Your task to perform on an android device: change alarm snooze length Image 0: 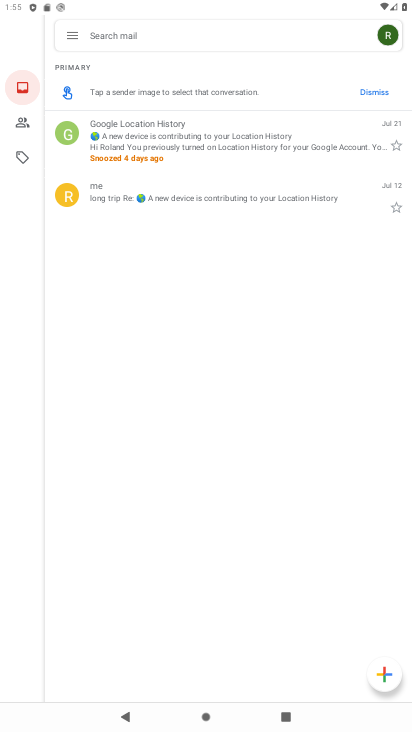
Step 0: press home button
Your task to perform on an android device: change alarm snooze length Image 1: 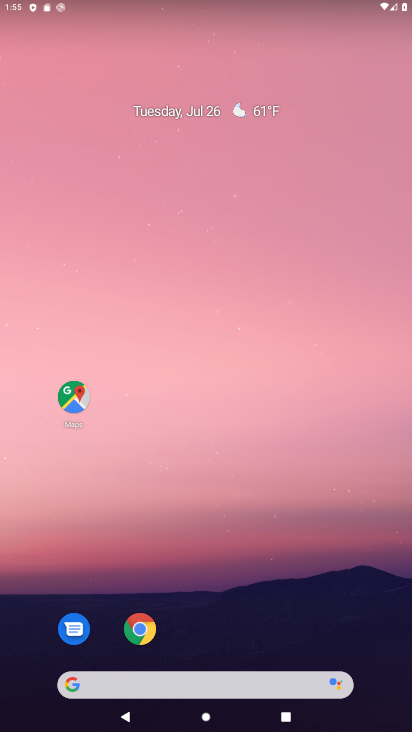
Step 1: drag from (229, 580) to (226, 7)
Your task to perform on an android device: change alarm snooze length Image 2: 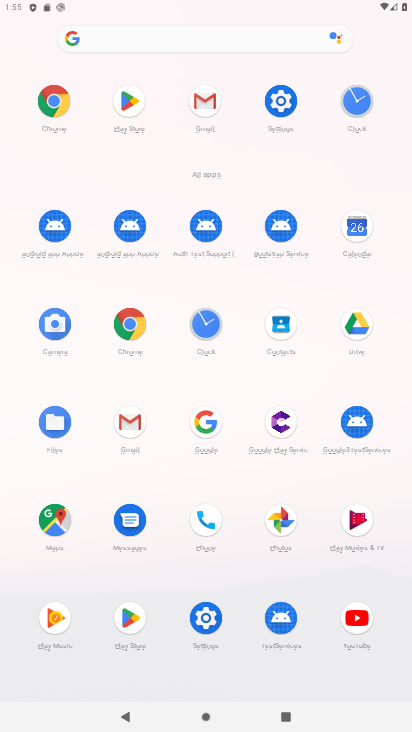
Step 2: click (207, 326)
Your task to perform on an android device: change alarm snooze length Image 3: 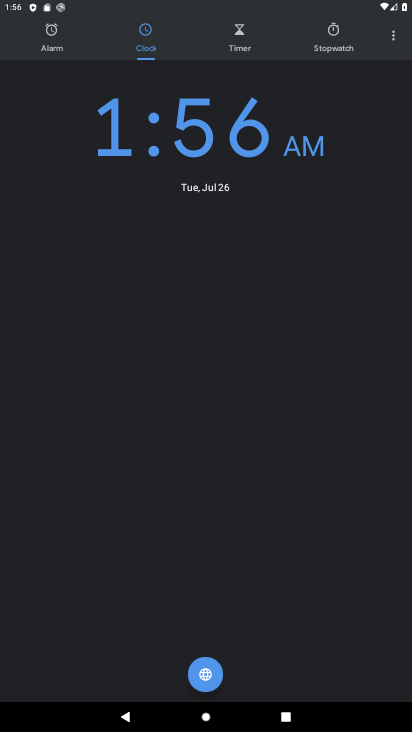
Step 3: click (393, 39)
Your task to perform on an android device: change alarm snooze length Image 4: 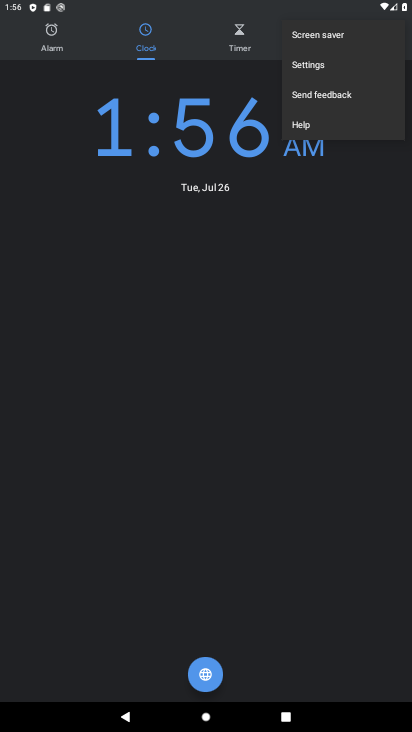
Step 4: click (309, 60)
Your task to perform on an android device: change alarm snooze length Image 5: 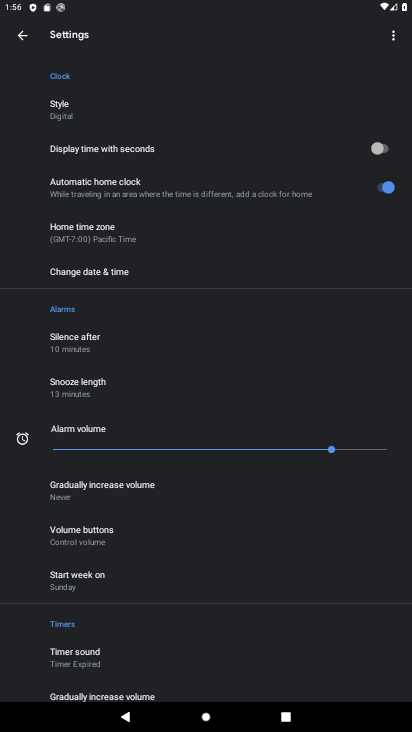
Step 5: click (82, 384)
Your task to perform on an android device: change alarm snooze length Image 6: 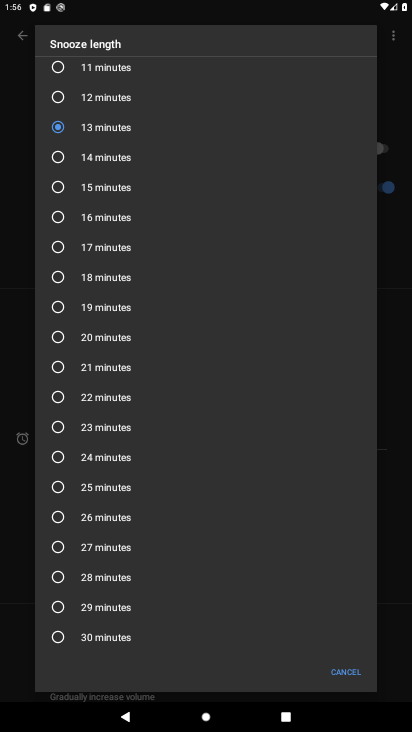
Step 6: click (56, 187)
Your task to perform on an android device: change alarm snooze length Image 7: 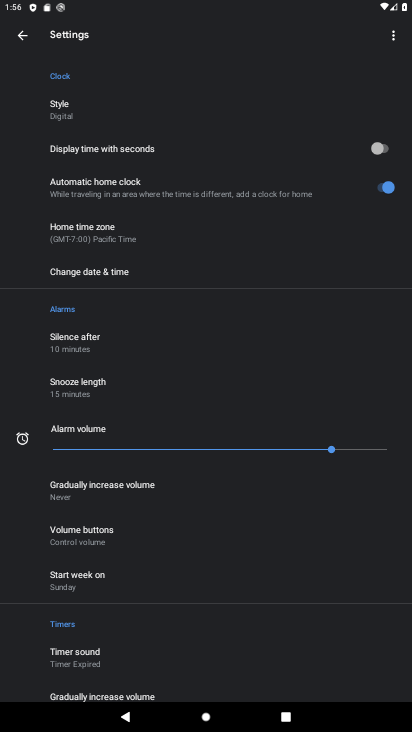
Step 7: task complete